Your task to perform on an android device: open app "Gmail" (install if not already installed) Image 0: 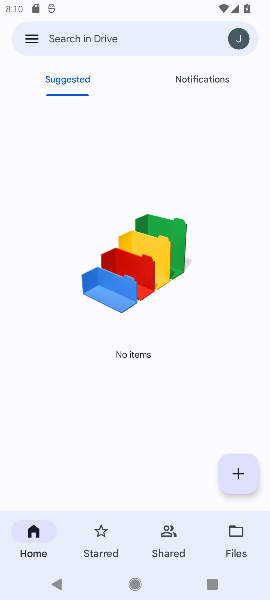
Step 0: press home button
Your task to perform on an android device: open app "Gmail" (install if not already installed) Image 1: 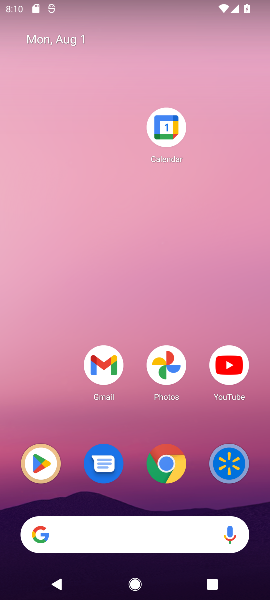
Step 1: click (102, 362)
Your task to perform on an android device: open app "Gmail" (install if not already installed) Image 2: 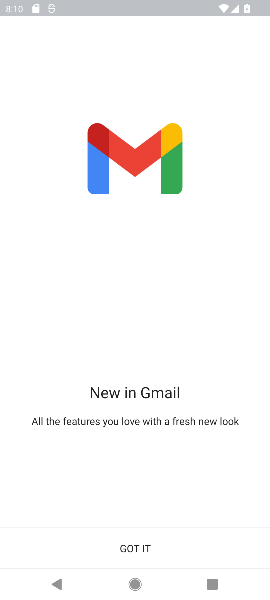
Step 2: click (124, 542)
Your task to perform on an android device: open app "Gmail" (install if not already installed) Image 3: 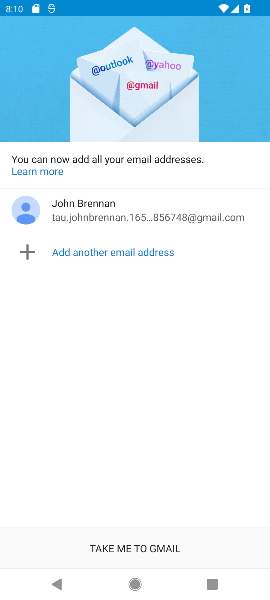
Step 3: click (115, 549)
Your task to perform on an android device: open app "Gmail" (install if not already installed) Image 4: 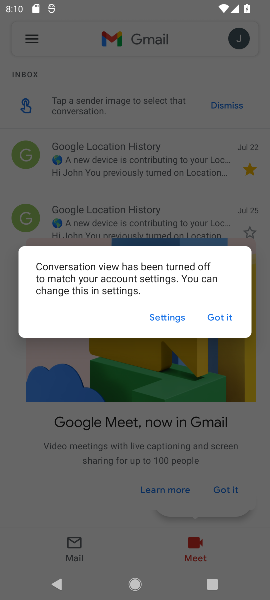
Step 4: click (221, 336)
Your task to perform on an android device: open app "Gmail" (install if not already installed) Image 5: 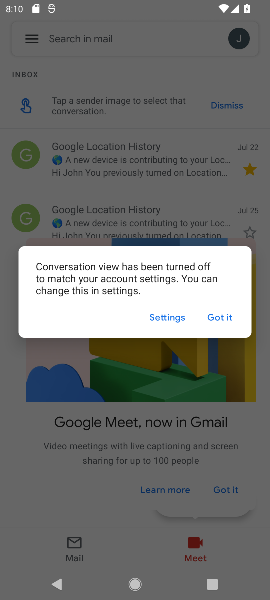
Step 5: click (221, 319)
Your task to perform on an android device: open app "Gmail" (install if not already installed) Image 6: 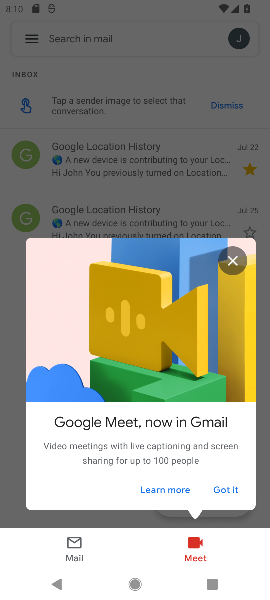
Step 6: click (224, 489)
Your task to perform on an android device: open app "Gmail" (install if not already installed) Image 7: 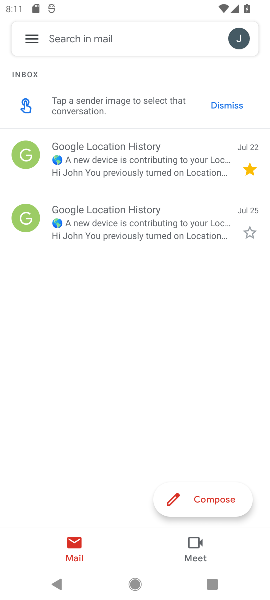
Step 7: task complete